Your task to perform on an android device: uninstall "HBO Max: Stream TV & Movies" Image 0: 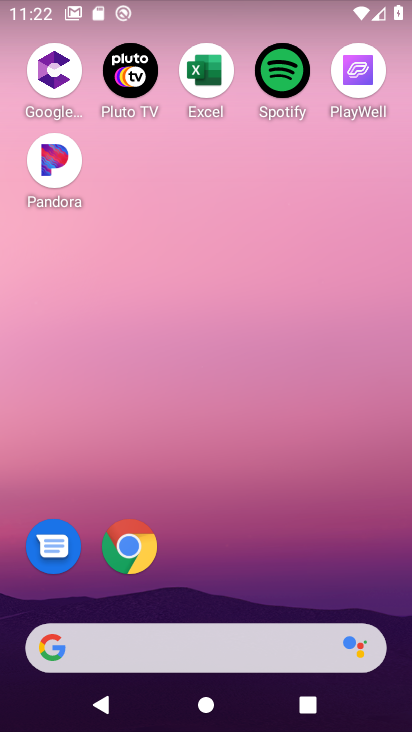
Step 0: drag from (260, 524) to (258, 349)
Your task to perform on an android device: uninstall "HBO Max: Stream TV & Movies" Image 1: 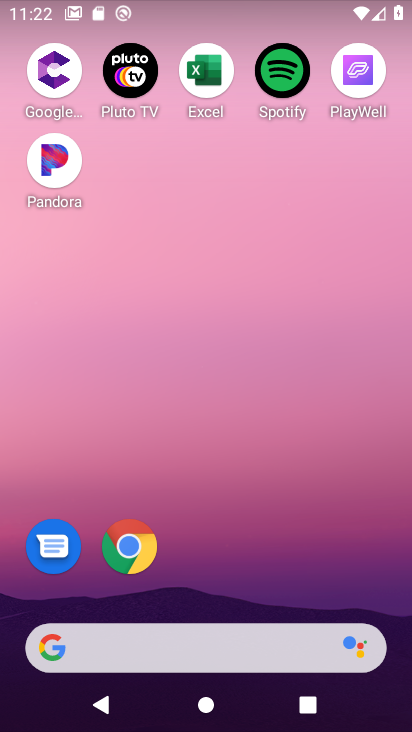
Step 1: drag from (214, 593) to (194, 97)
Your task to perform on an android device: uninstall "HBO Max: Stream TV & Movies" Image 2: 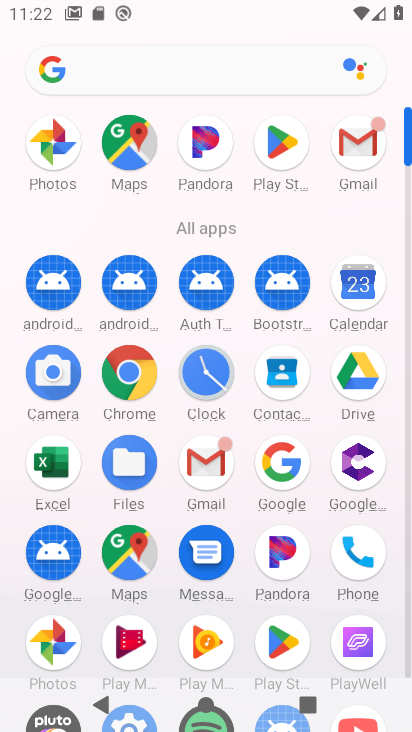
Step 2: click (286, 135)
Your task to perform on an android device: uninstall "HBO Max: Stream TV & Movies" Image 3: 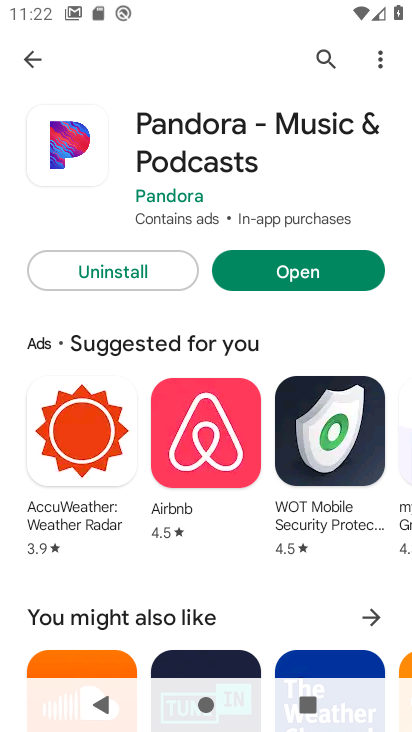
Step 3: click (31, 48)
Your task to perform on an android device: uninstall "HBO Max: Stream TV & Movies" Image 4: 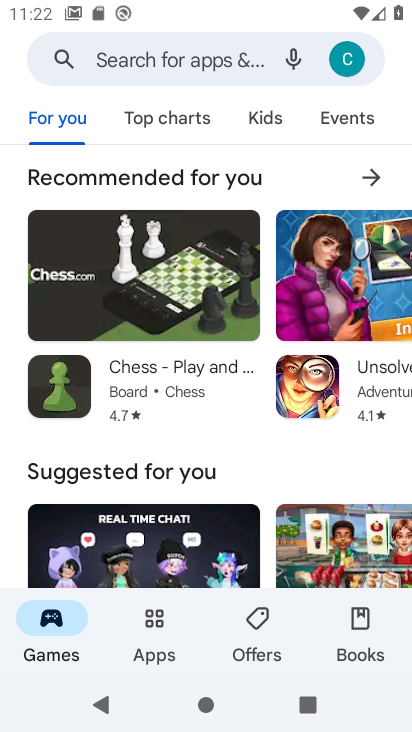
Step 4: click (128, 50)
Your task to perform on an android device: uninstall "HBO Max: Stream TV & Movies" Image 5: 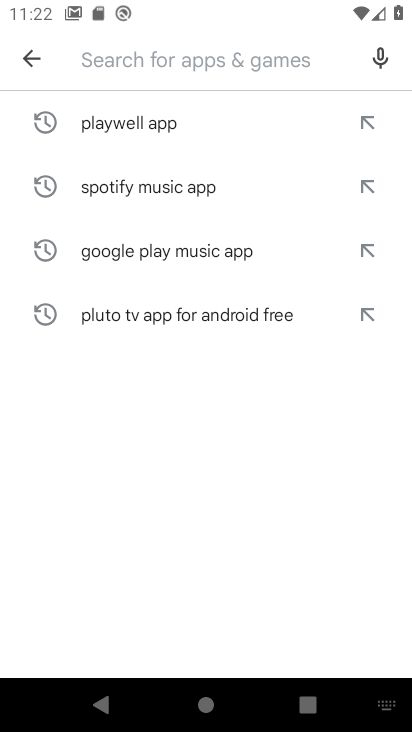
Step 5: type "HBO Max: Stream TV & Movies "
Your task to perform on an android device: uninstall "HBO Max: Stream TV & Movies" Image 6: 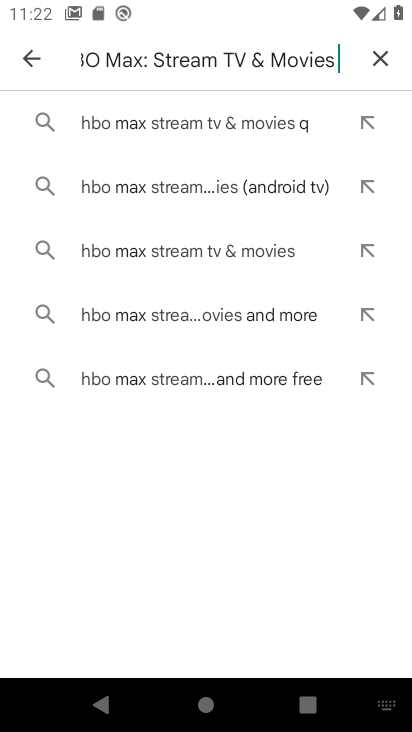
Step 6: click (187, 133)
Your task to perform on an android device: uninstall "HBO Max: Stream TV & Movies" Image 7: 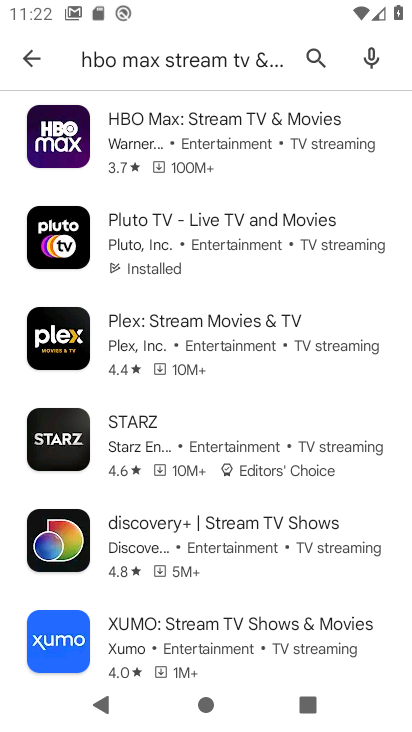
Step 7: click (187, 130)
Your task to perform on an android device: uninstall "HBO Max: Stream TV & Movies" Image 8: 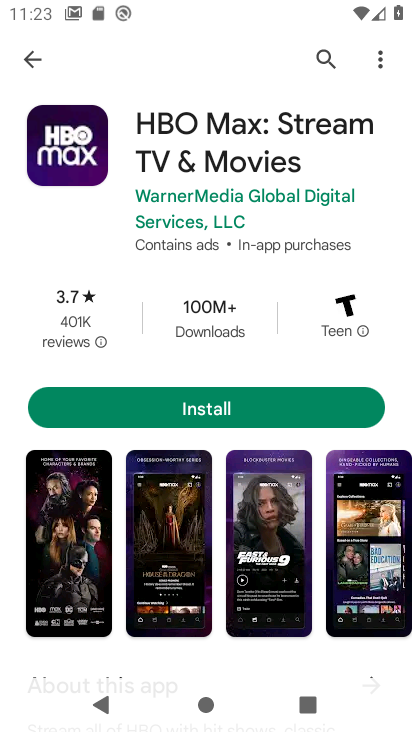
Step 8: click (250, 406)
Your task to perform on an android device: uninstall "HBO Max: Stream TV & Movies" Image 9: 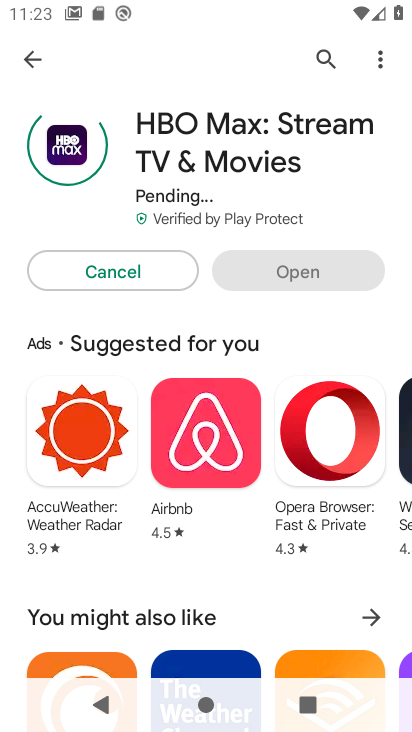
Step 9: click (120, 269)
Your task to perform on an android device: uninstall "HBO Max: Stream TV & Movies" Image 10: 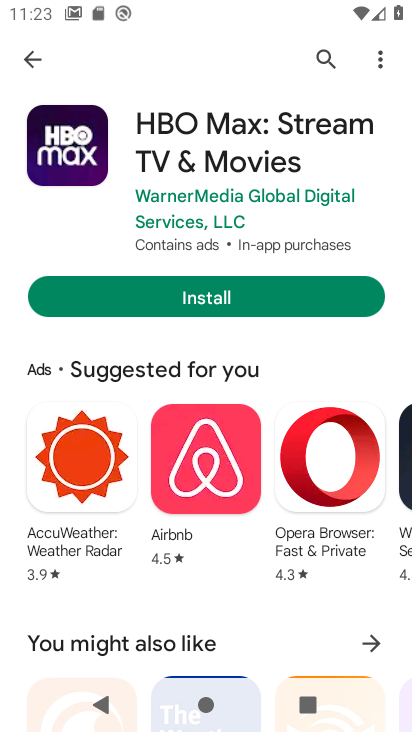
Step 10: task complete